Your task to perform on an android device: open app "Spotify" (install if not already installed) Image 0: 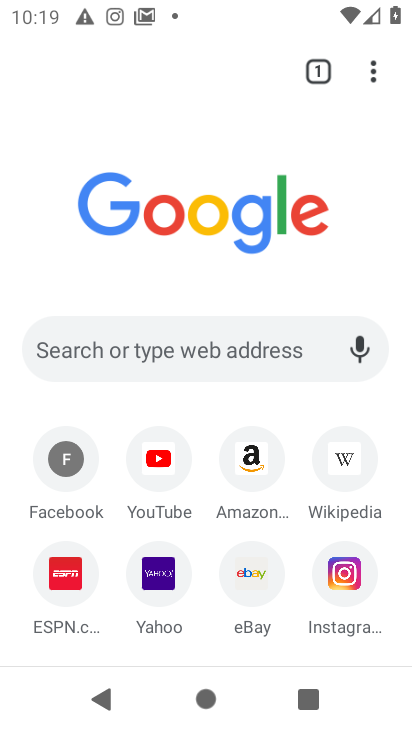
Step 0: press home button
Your task to perform on an android device: open app "Spotify" (install if not already installed) Image 1: 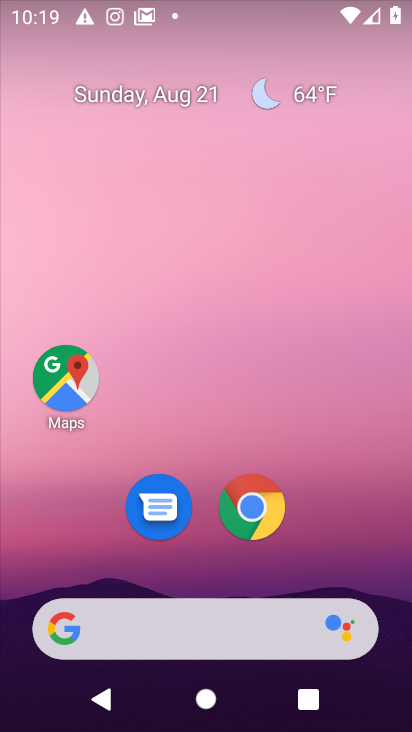
Step 1: drag from (200, 446) to (203, 80)
Your task to perform on an android device: open app "Spotify" (install if not already installed) Image 2: 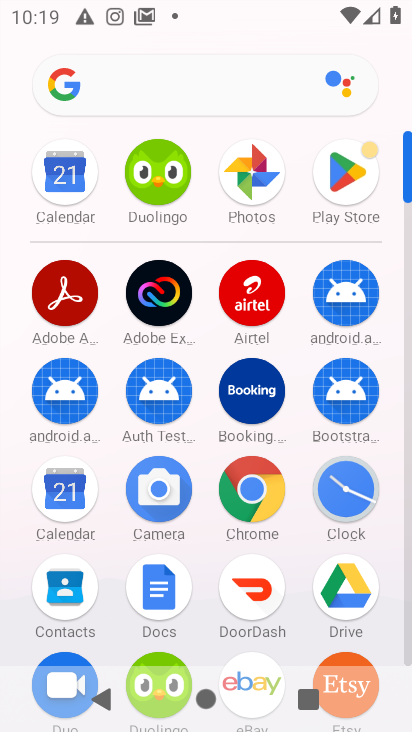
Step 2: click (348, 174)
Your task to perform on an android device: open app "Spotify" (install if not already installed) Image 3: 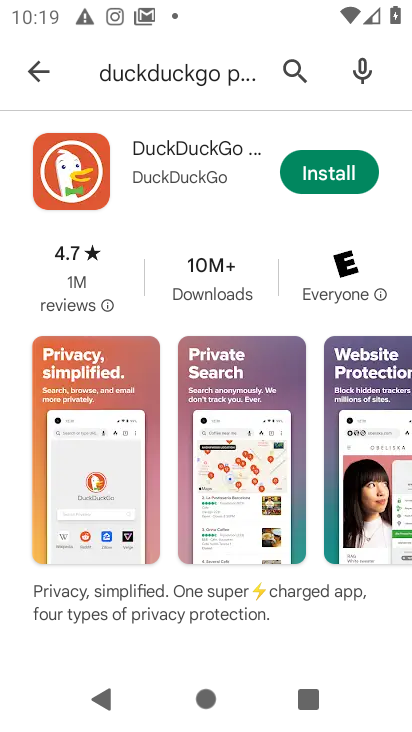
Step 3: click (32, 71)
Your task to perform on an android device: open app "Spotify" (install if not already installed) Image 4: 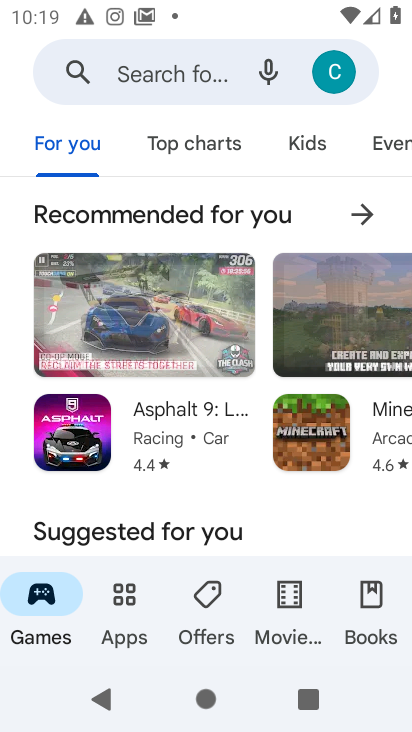
Step 4: click (154, 71)
Your task to perform on an android device: open app "Spotify" (install if not already installed) Image 5: 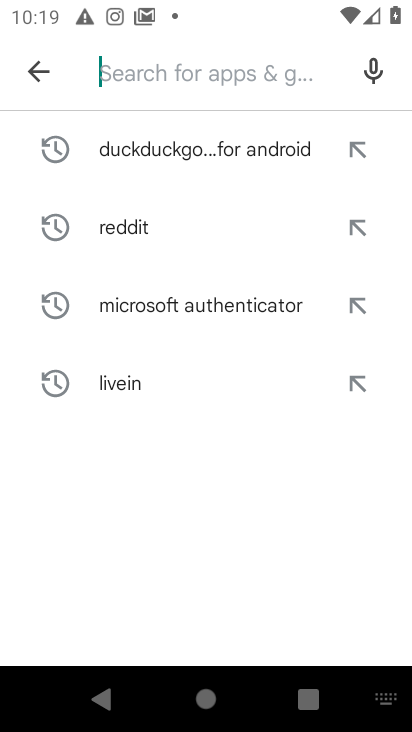
Step 5: type "Spotify"
Your task to perform on an android device: open app "Spotify" (install if not already installed) Image 6: 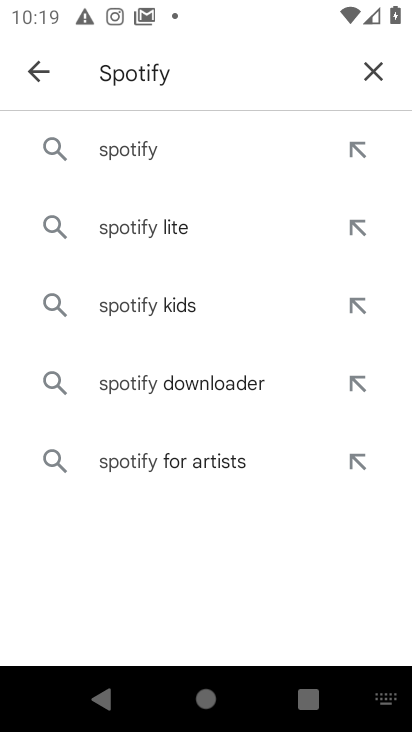
Step 6: click (136, 146)
Your task to perform on an android device: open app "Spotify" (install if not already installed) Image 7: 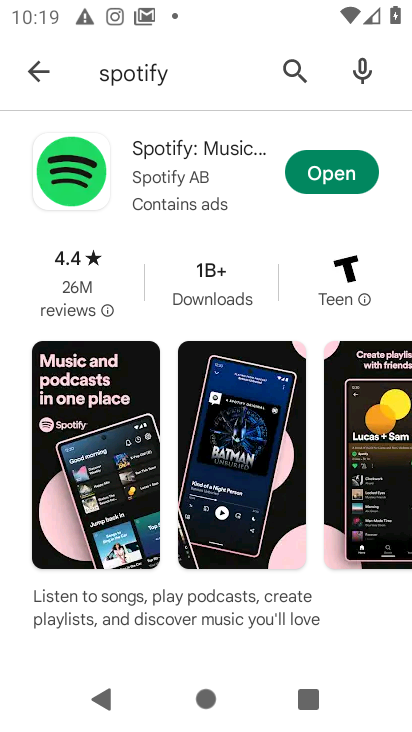
Step 7: click (316, 179)
Your task to perform on an android device: open app "Spotify" (install if not already installed) Image 8: 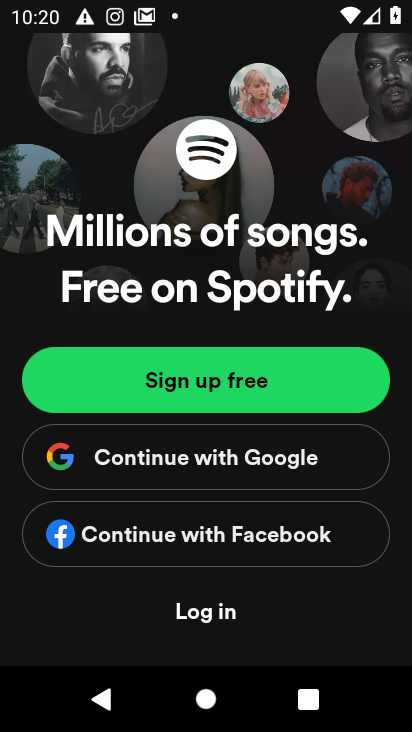
Step 8: task complete